Your task to perform on an android device: install app "WhatsApp Messenger" Image 0: 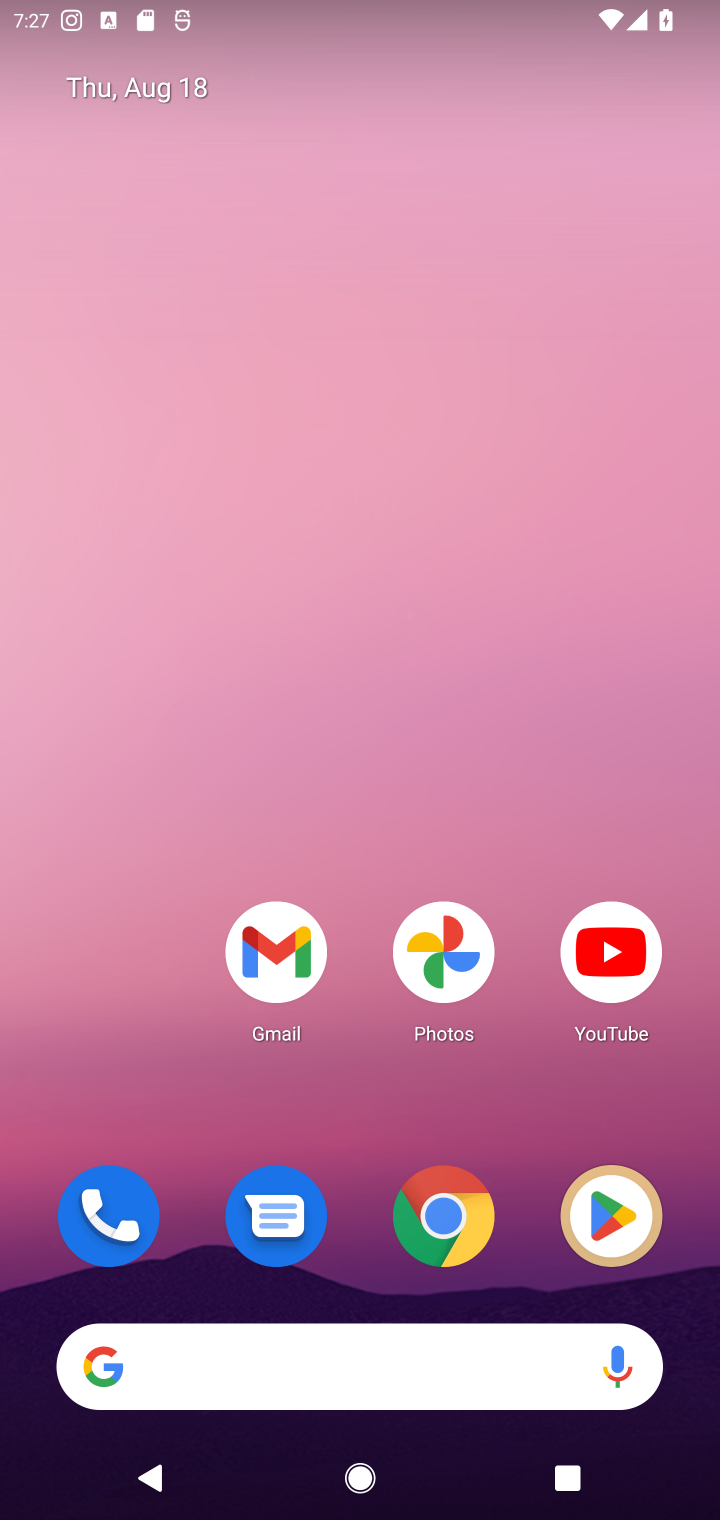
Step 0: click (620, 1214)
Your task to perform on an android device: install app "WhatsApp Messenger" Image 1: 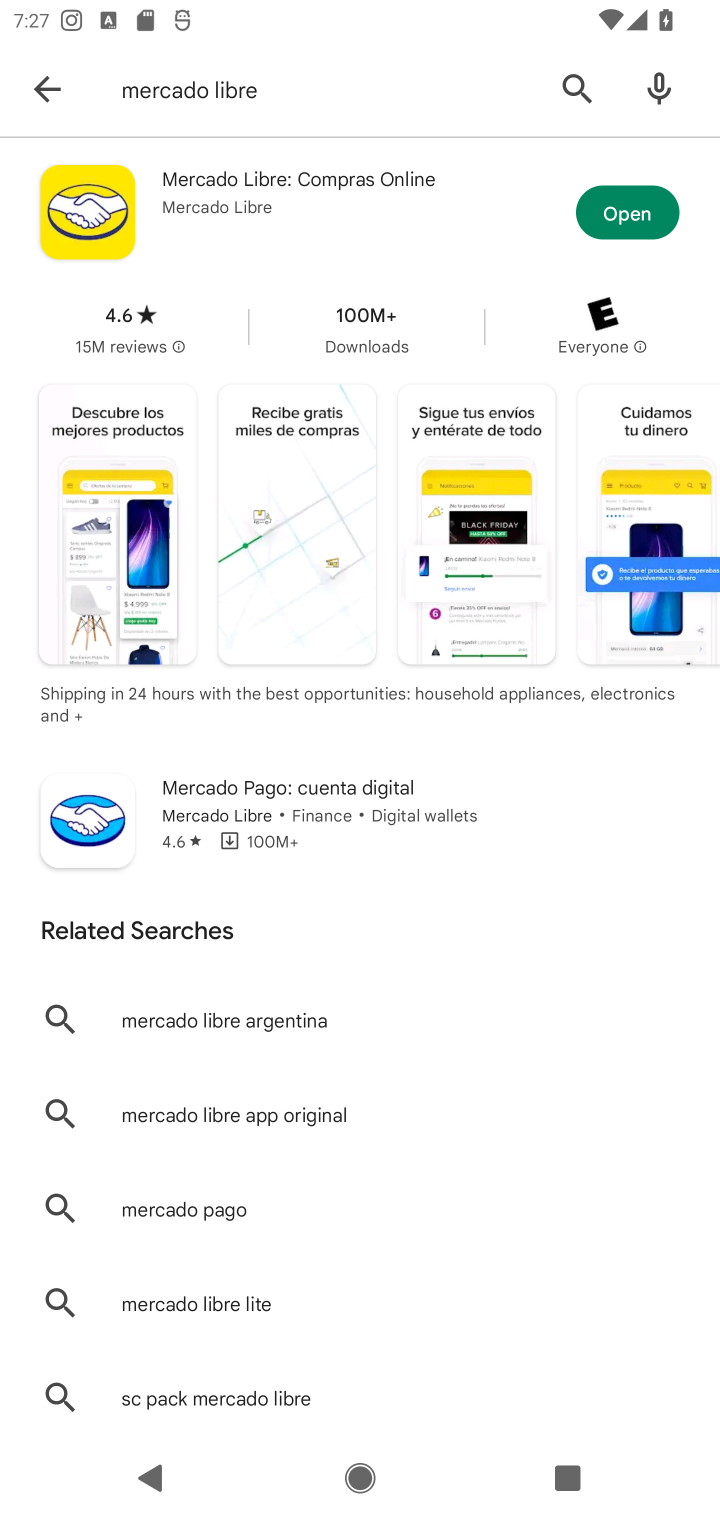
Step 1: click (569, 93)
Your task to perform on an android device: install app "WhatsApp Messenger" Image 2: 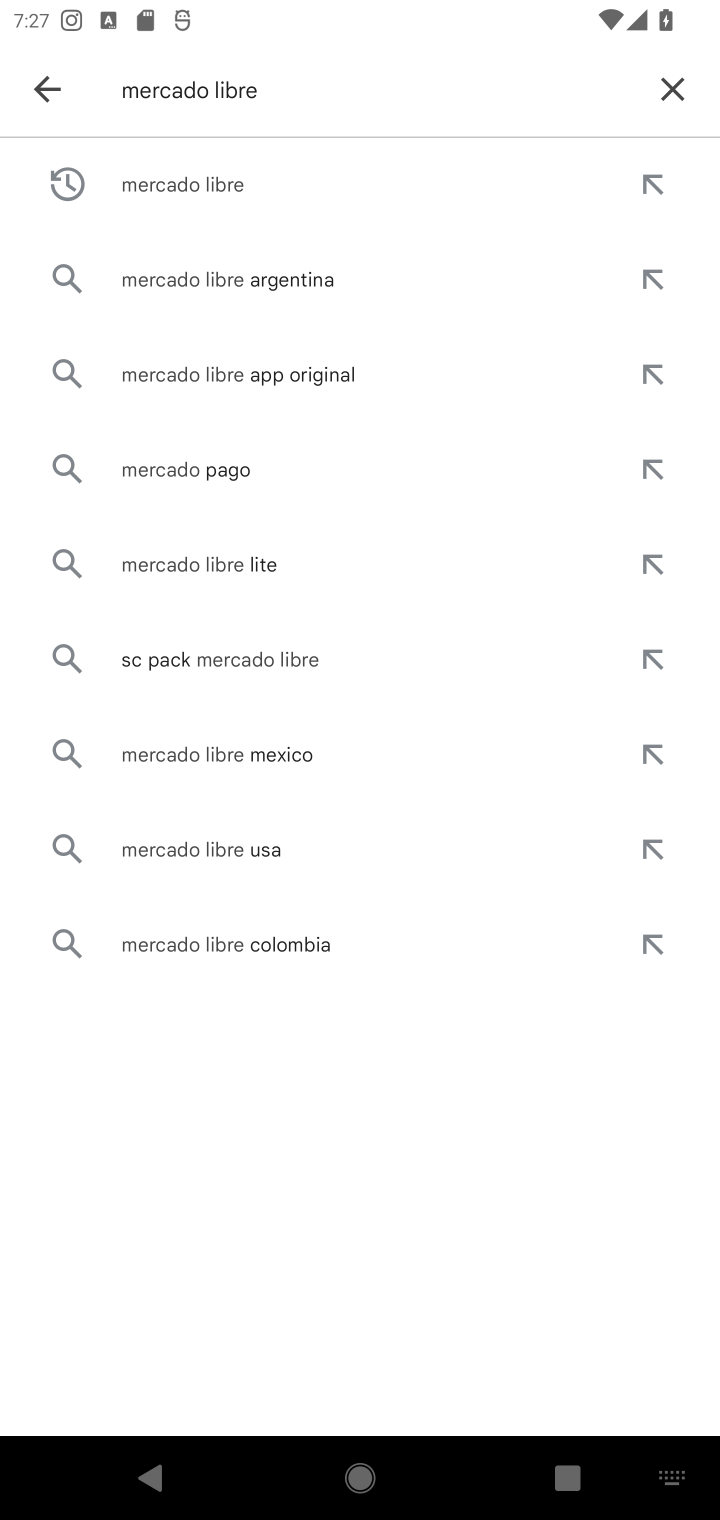
Step 2: click (659, 89)
Your task to perform on an android device: install app "WhatsApp Messenger" Image 3: 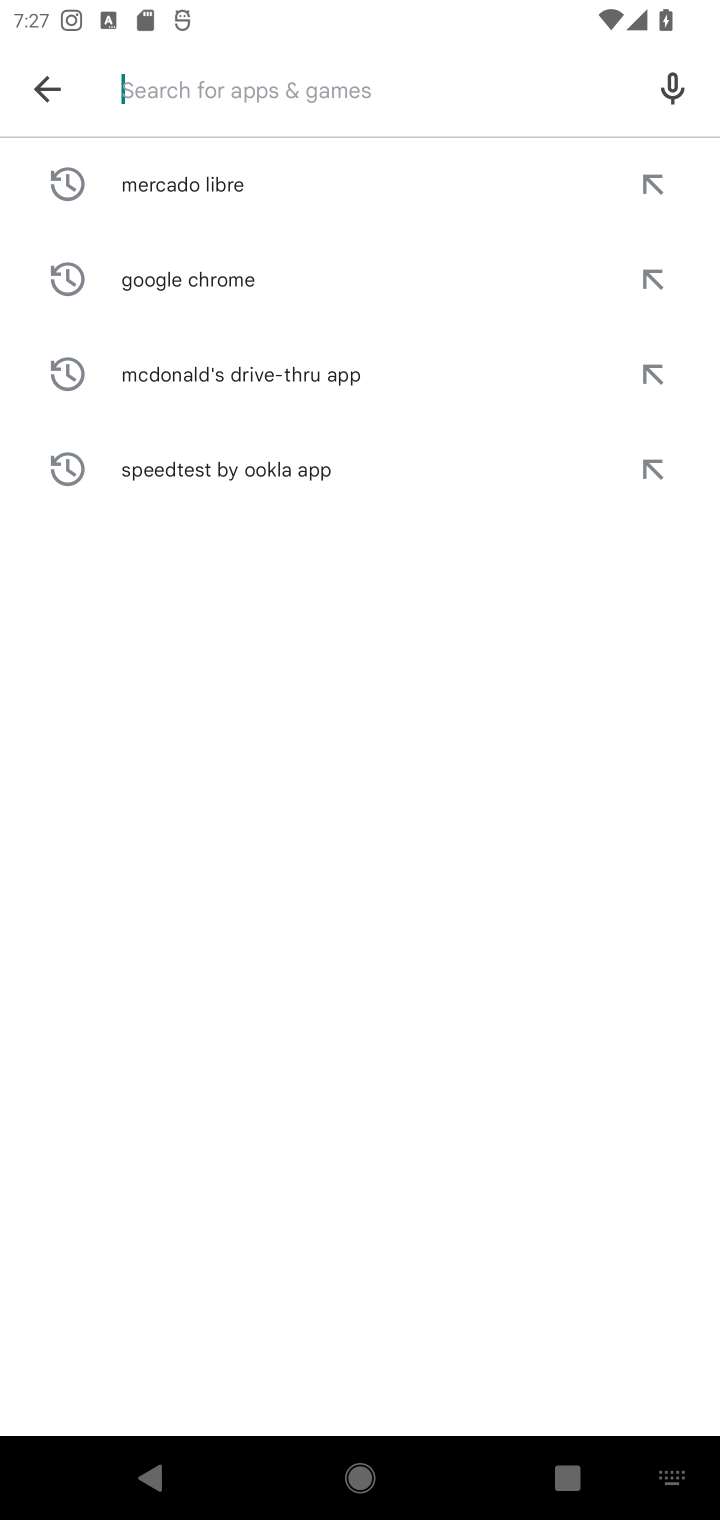
Step 3: type "WhatsApp Messenger"
Your task to perform on an android device: install app "WhatsApp Messenger" Image 4: 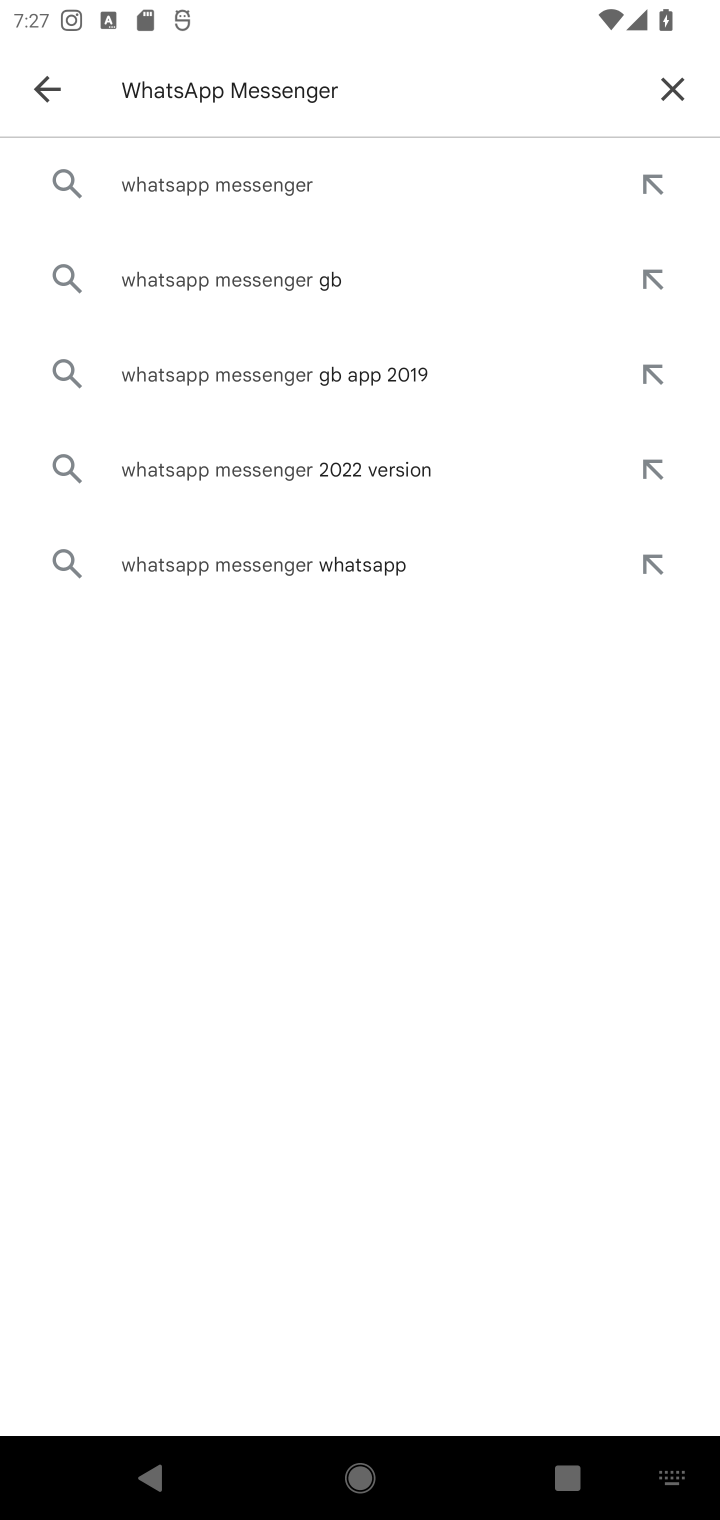
Step 4: click (244, 188)
Your task to perform on an android device: install app "WhatsApp Messenger" Image 5: 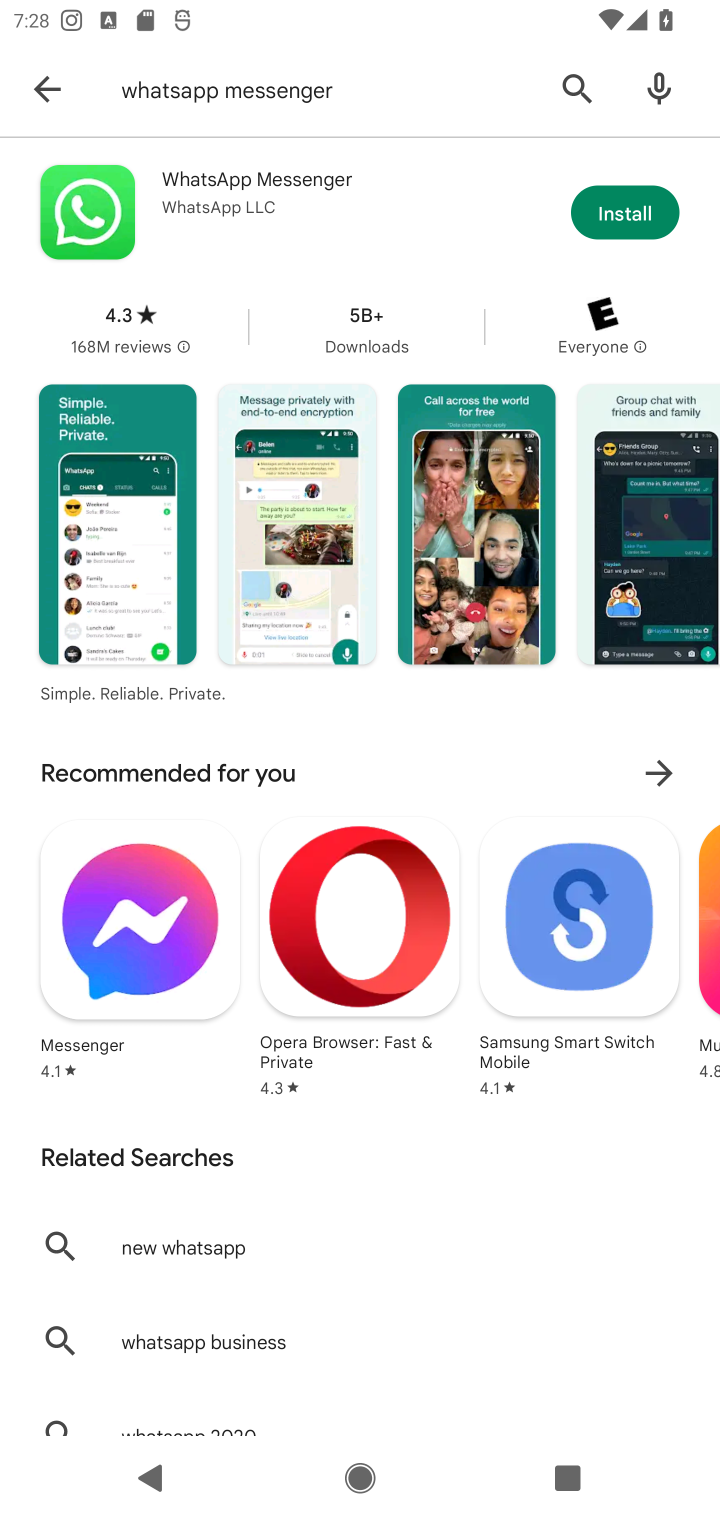
Step 5: click (605, 227)
Your task to perform on an android device: install app "WhatsApp Messenger" Image 6: 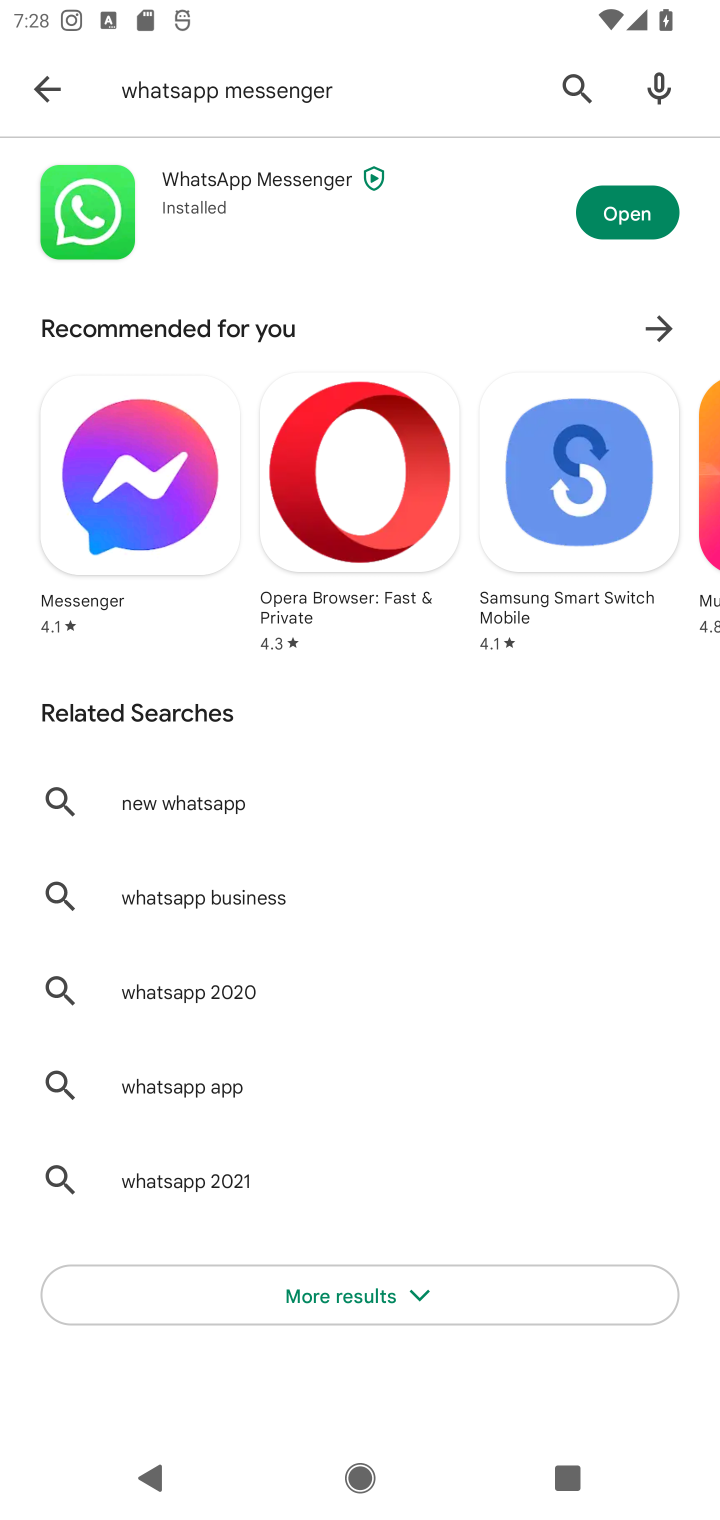
Step 6: task complete